Your task to perform on an android device: change your default location settings in chrome Image 0: 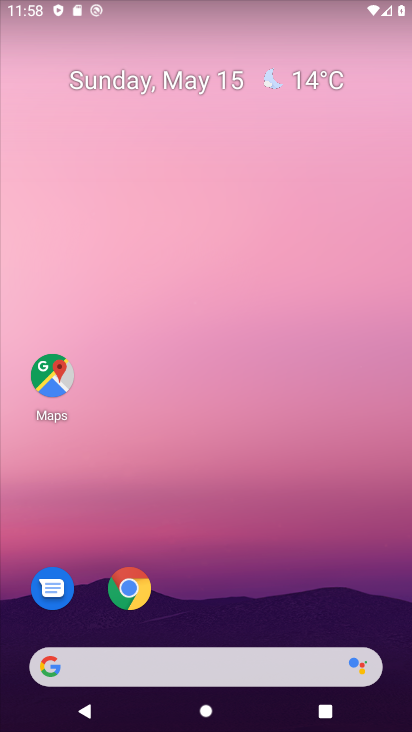
Step 0: click (129, 593)
Your task to perform on an android device: change your default location settings in chrome Image 1: 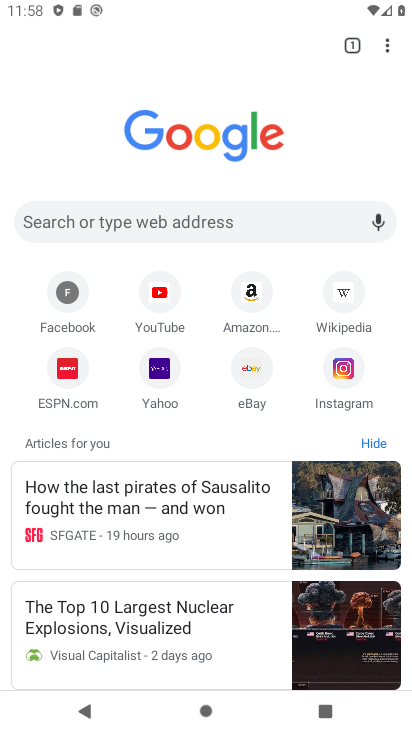
Step 1: click (388, 46)
Your task to perform on an android device: change your default location settings in chrome Image 2: 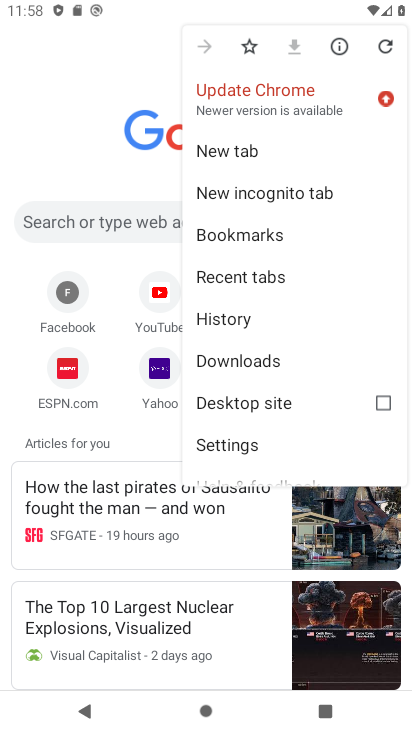
Step 2: click (237, 442)
Your task to perform on an android device: change your default location settings in chrome Image 3: 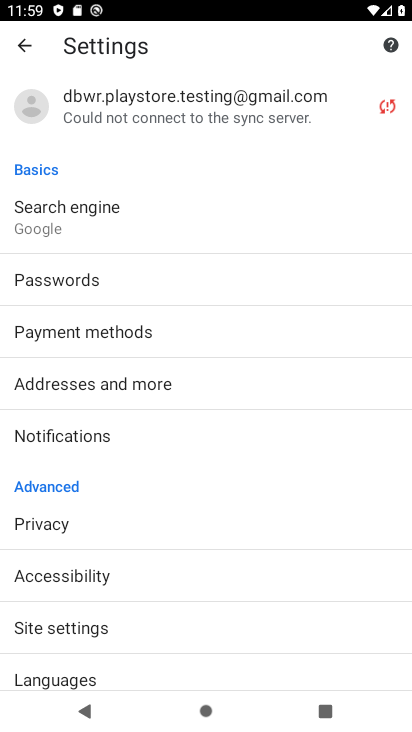
Step 3: drag from (107, 551) to (144, 141)
Your task to perform on an android device: change your default location settings in chrome Image 4: 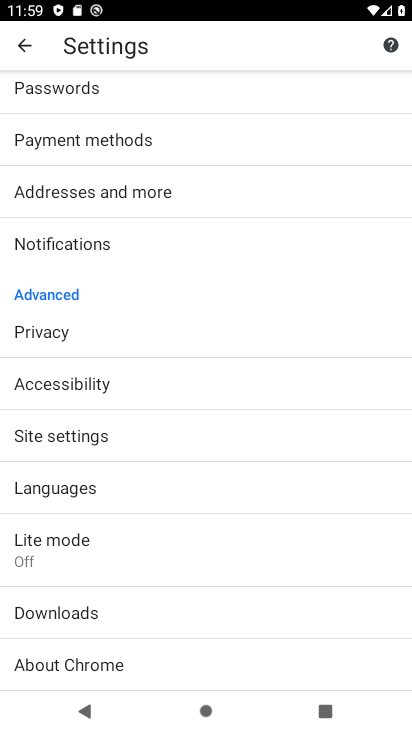
Step 4: click (123, 433)
Your task to perform on an android device: change your default location settings in chrome Image 5: 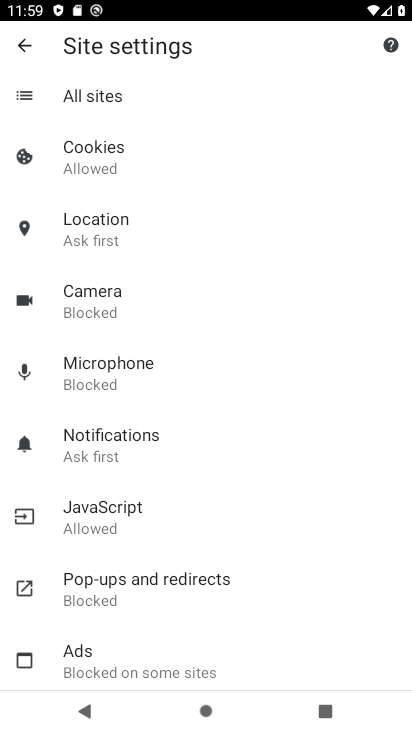
Step 5: click (96, 227)
Your task to perform on an android device: change your default location settings in chrome Image 6: 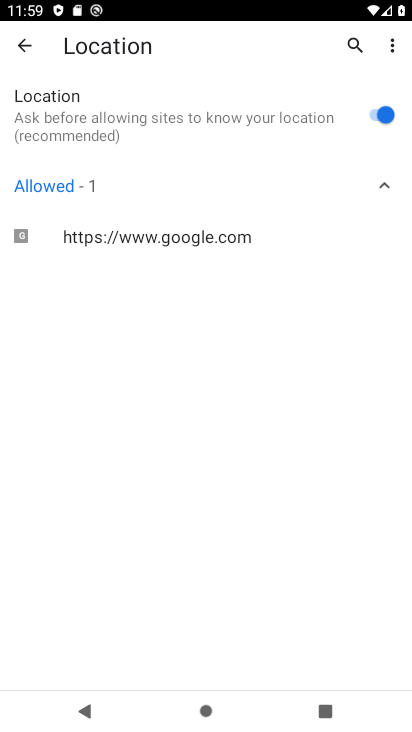
Step 6: task complete